Your task to perform on an android device: check data usage Image 0: 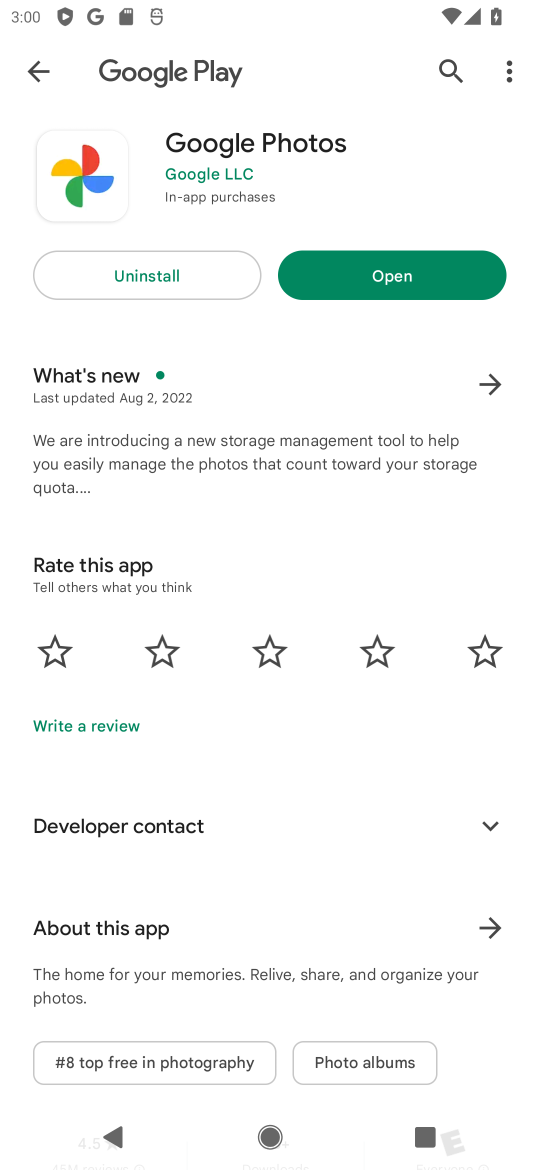
Step 0: press home button
Your task to perform on an android device: check data usage Image 1: 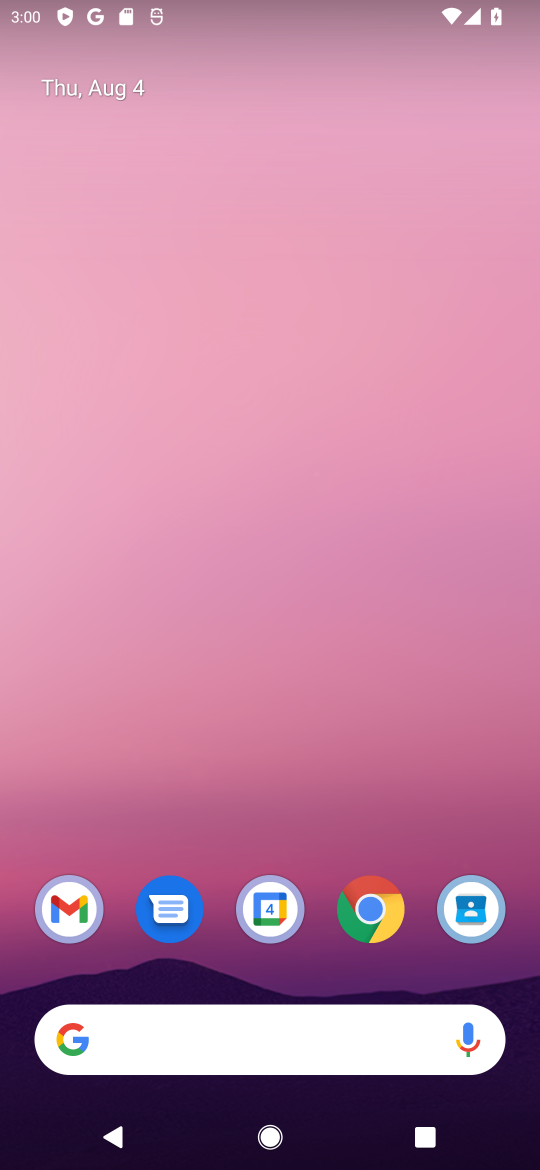
Step 1: drag from (221, 1032) to (393, 166)
Your task to perform on an android device: check data usage Image 2: 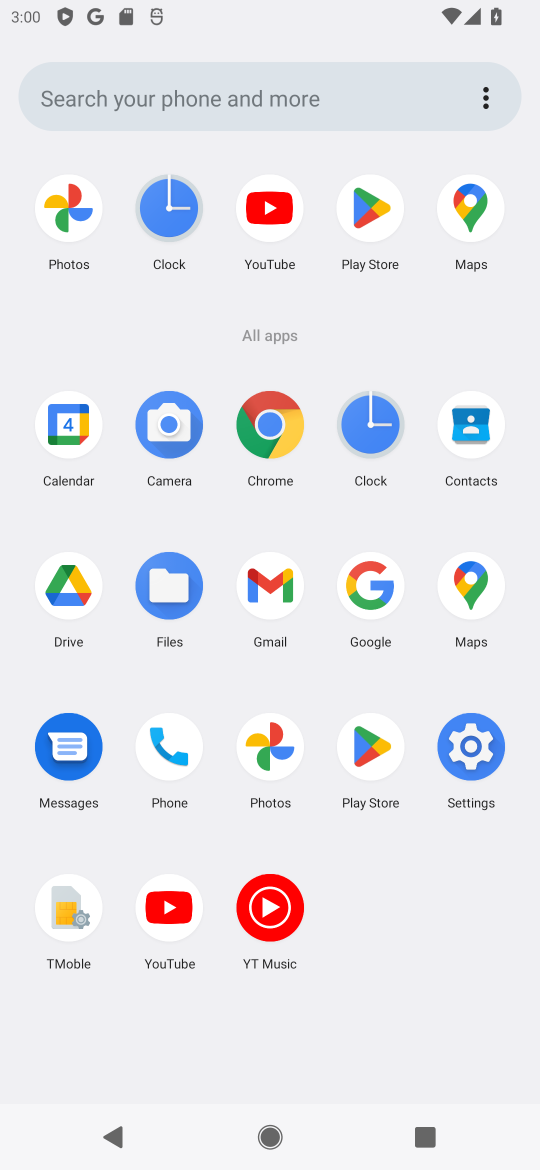
Step 2: click (475, 763)
Your task to perform on an android device: check data usage Image 3: 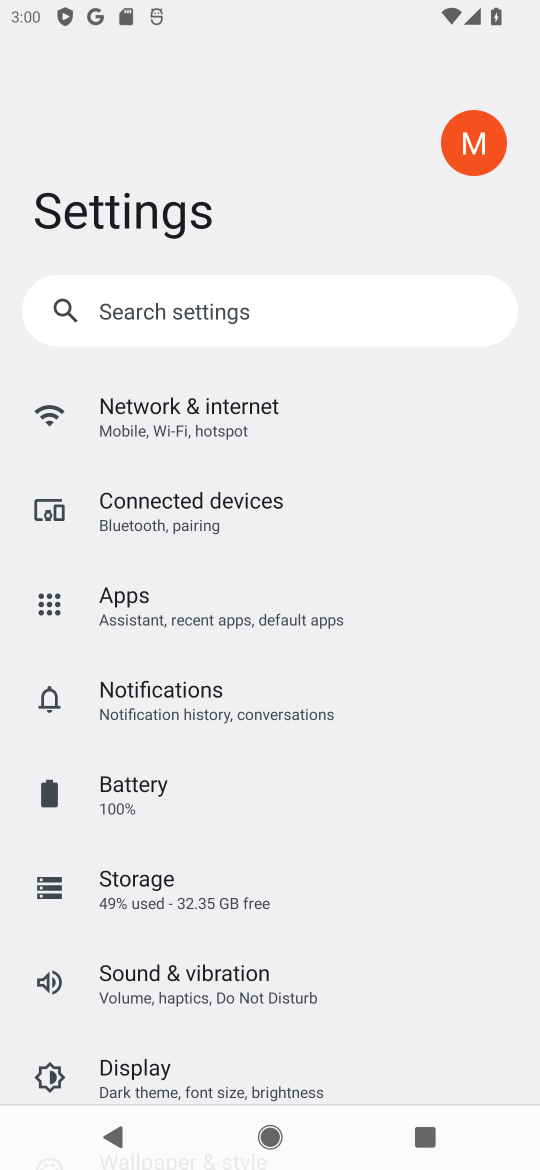
Step 3: click (233, 441)
Your task to perform on an android device: check data usage Image 4: 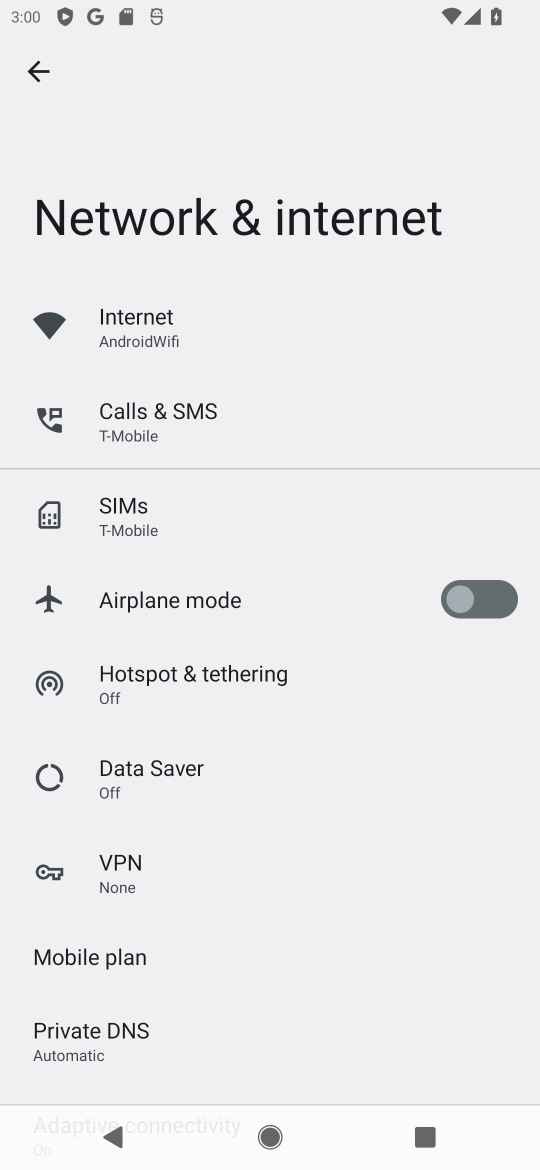
Step 4: click (240, 971)
Your task to perform on an android device: check data usage Image 5: 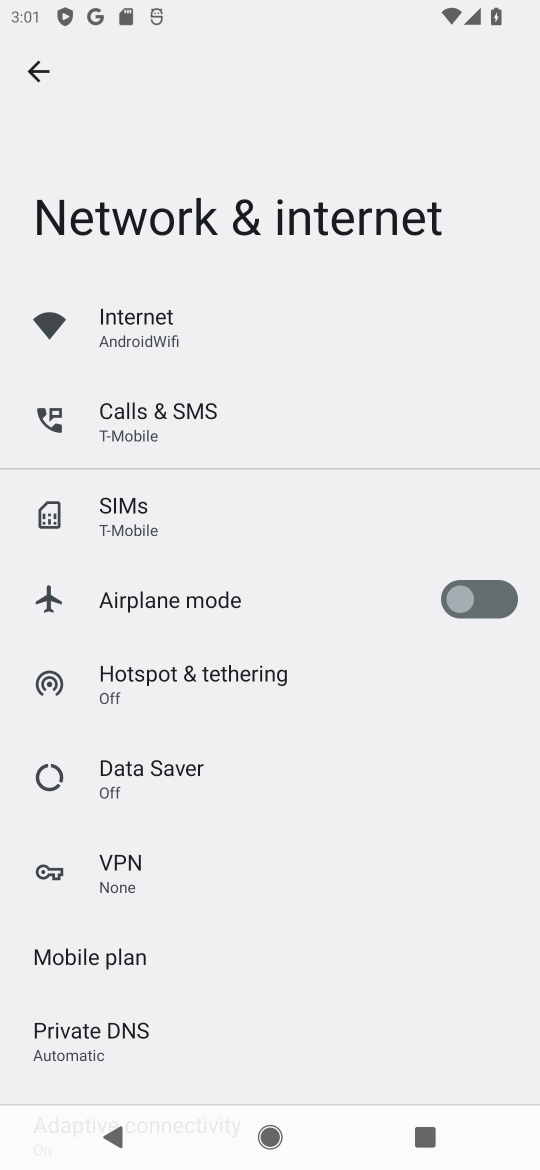
Step 5: click (163, 329)
Your task to perform on an android device: check data usage Image 6: 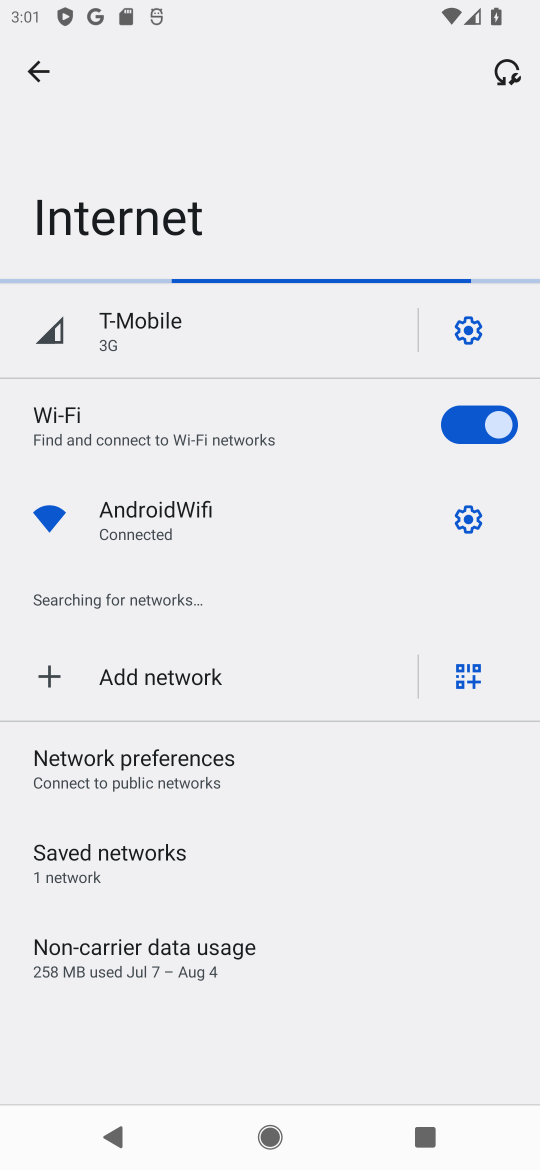
Step 6: drag from (289, 921) to (387, 352)
Your task to perform on an android device: check data usage Image 7: 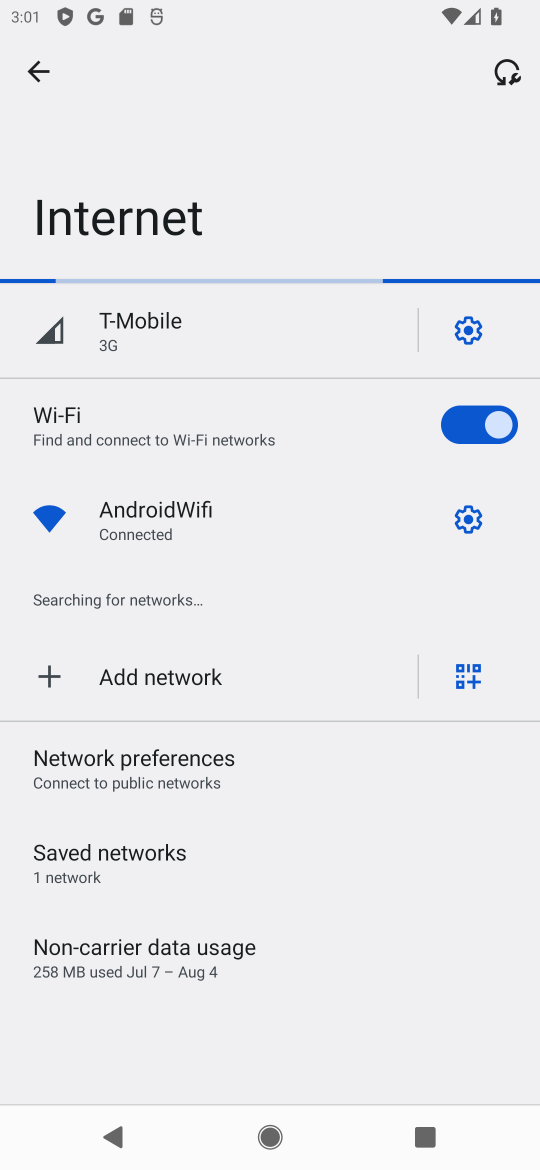
Step 7: click (471, 316)
Your task to perform on an android device: check data usage Image 8: 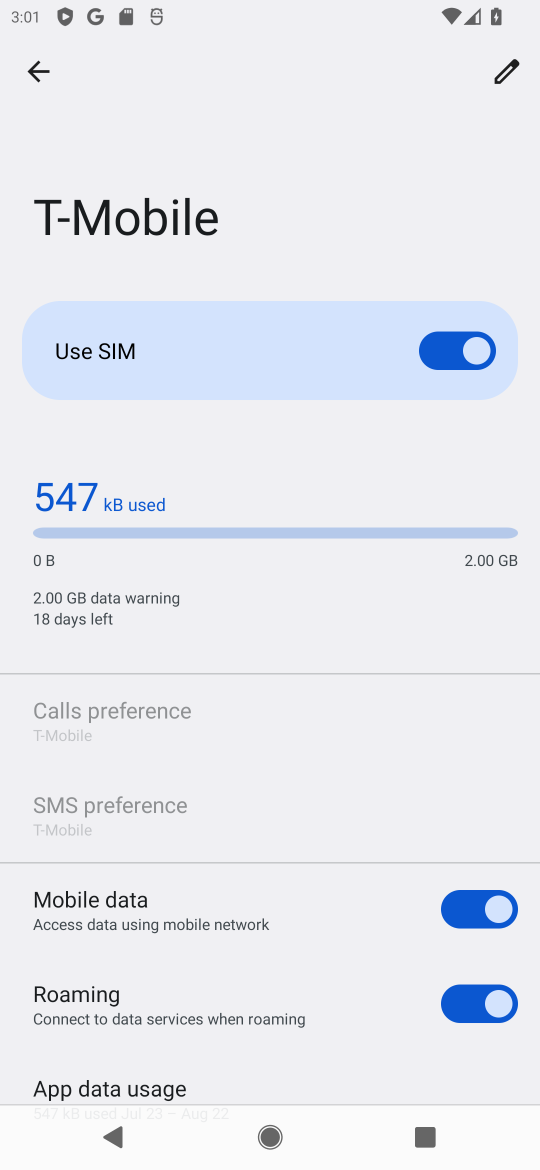
Step 8: task complete